Your task to perform on an android device: Go to settings Image 0: 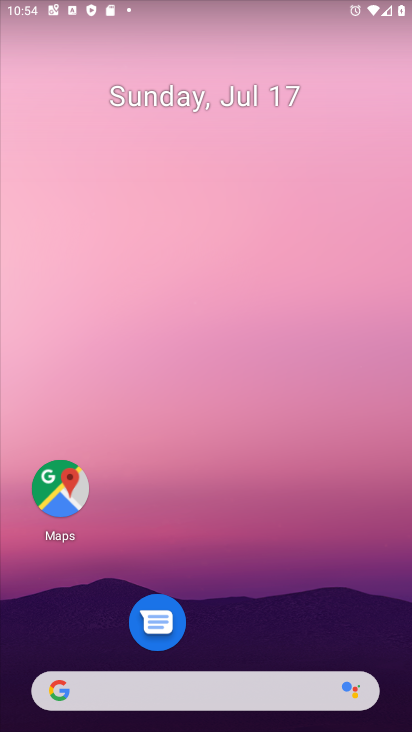
Step 0: drag from (262, 568) to (193, 1)
Your task to perform on an android device: Go to settings Image 1: 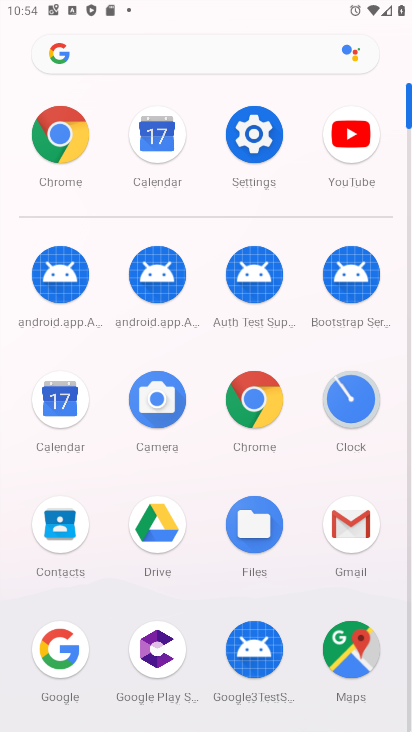
Step 1: click (253, 140)
Your task to perform on an android device: Go to settings Image 2: 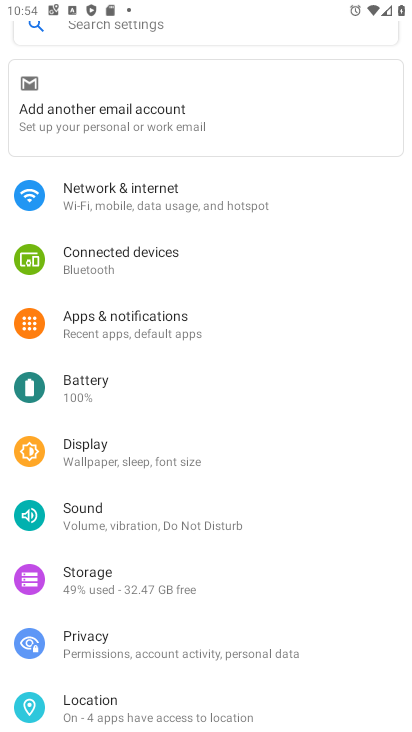
Step 2: task complete